Your task to perform on an android device: Show me the alarms in the clock app Image 0: 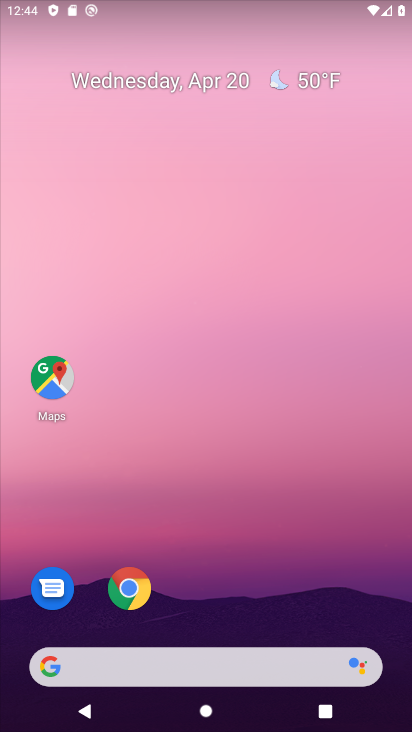
Step 0: drag from (219, 630) to (186, 309)
Your task to perform on an android device: Show me the alarms in the clock app Image 1: 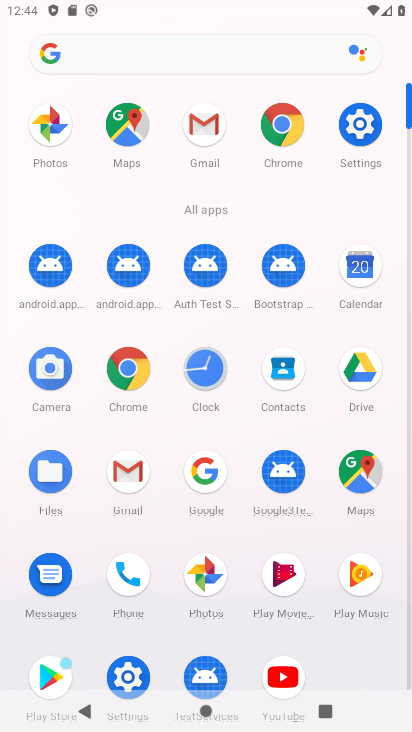
Step 1: click (189, 372)
Your task to perform on an android device: Show me the alarms in the clock app Image 2: 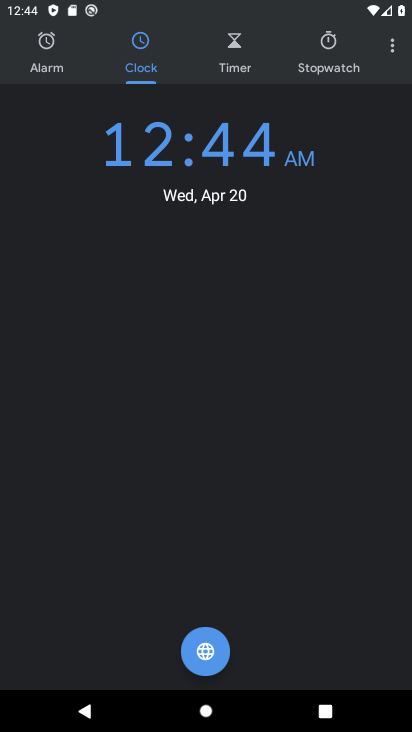
Step 2: click (42, 52)
Your task to perform on an android device: Show me the alarms in the clock app Image 3: 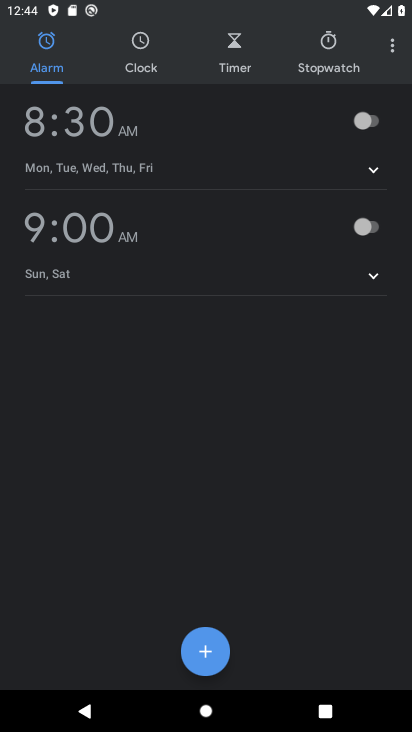
Step 3: task complete